Your task to perform on an android device: Go to calendar. Show me events next week Image 0: 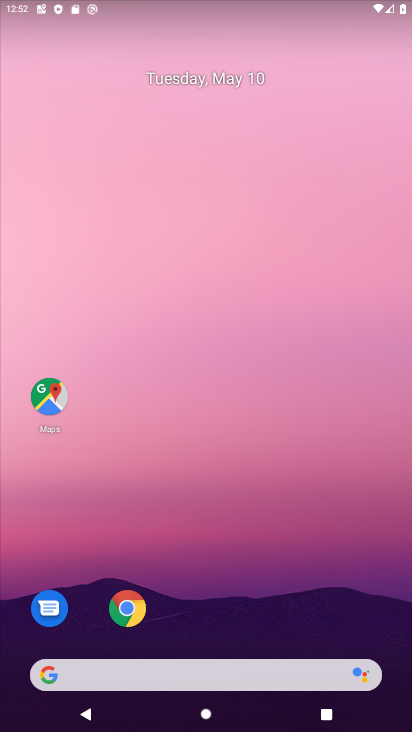
Step 0: drag from (221, 625) to (295, 134)
Your task to perform on an android device: Go to calendar. Show me events next week Image 1: 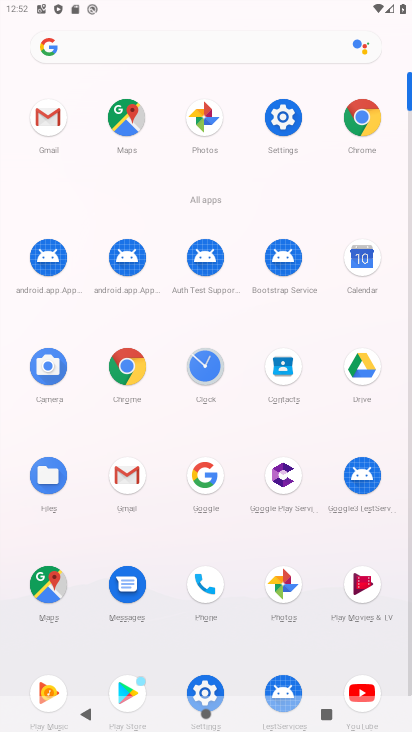
Step 1: click (365, 265)
Your task to perform on an android device: Go to calendar. Show me events next week Image 2: 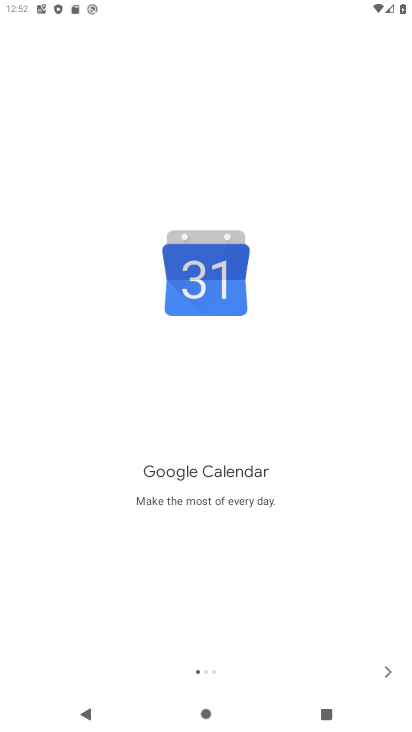
Step 2: click (384, 677)
Your task to perform on an android device: Go to calendar. Show me events next week Image 3: 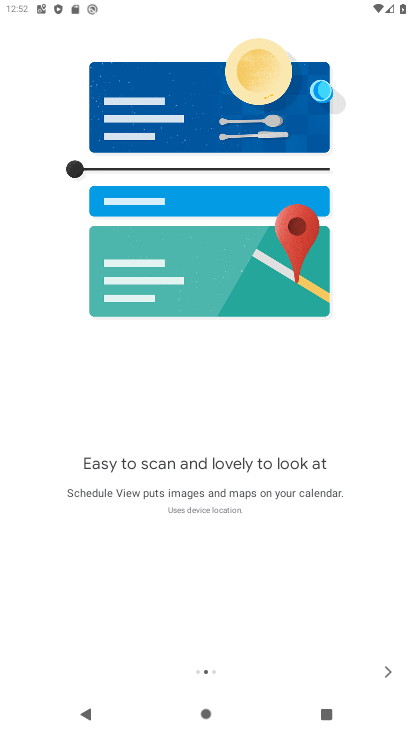
Step 3: click (383, 678)
Your task to perform on an android device: Go to calendar. Show me events next week Image 4: 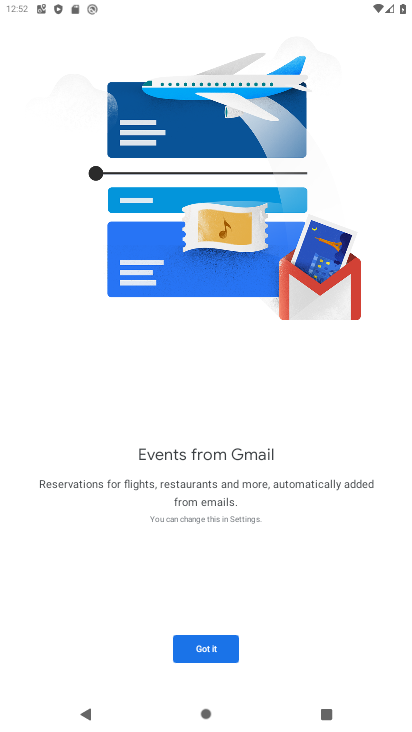
Step 4: click (216, 658)
Your task to perform on an android device: Go to calendar. Show me events next week Image 5: 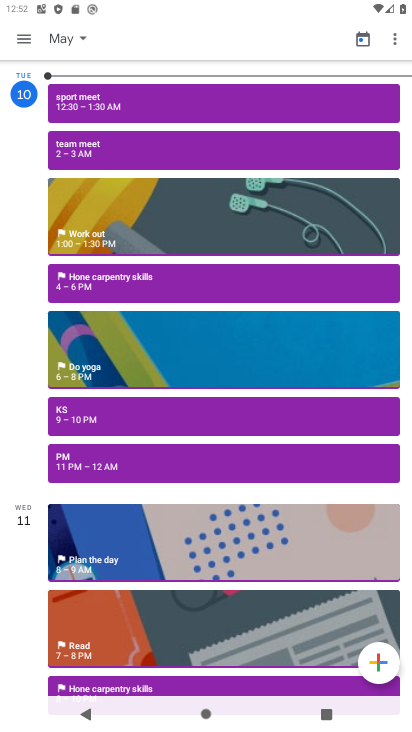
Step 5: click (71, 32)
Your task to perform on an android device: Go to calendar. Show me events next week Image 6: 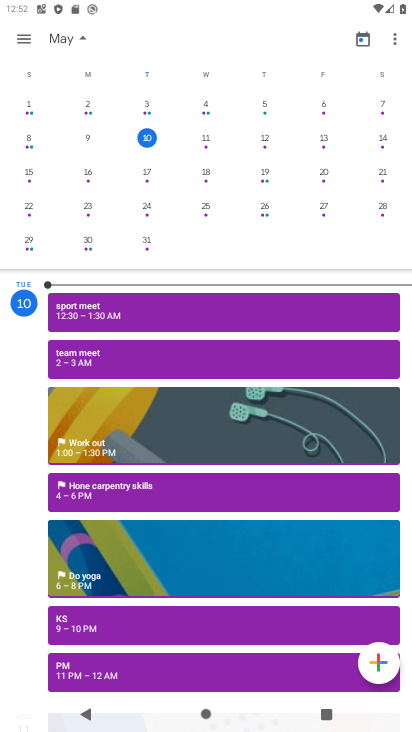
Step 6: click (31, 178)
Your task to perform on an android device: Go to calendar. Show me events next week Image 7: 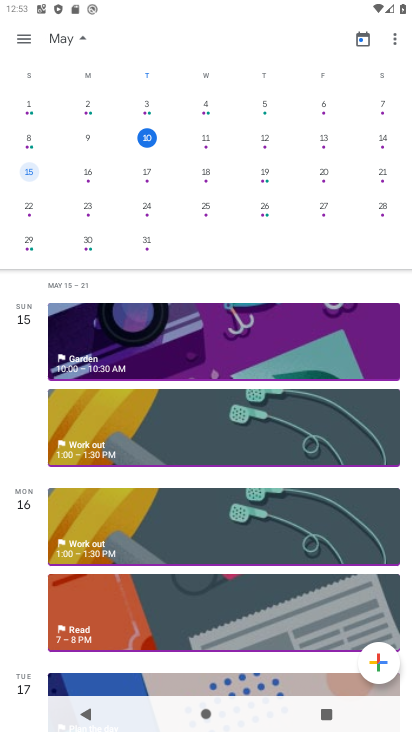
Step 7: task complete